Your task to perform on an android device: change your default location settings in chrome Image 0: 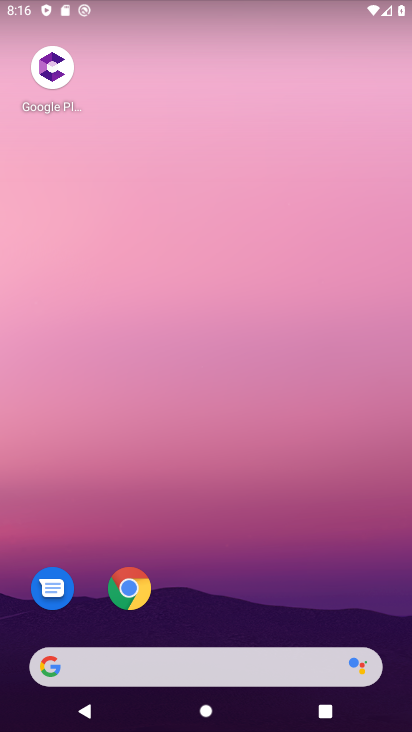
Step 0: click (129, 571)
Your task to perform on an android device: change your default location settings in chrome Image 1: 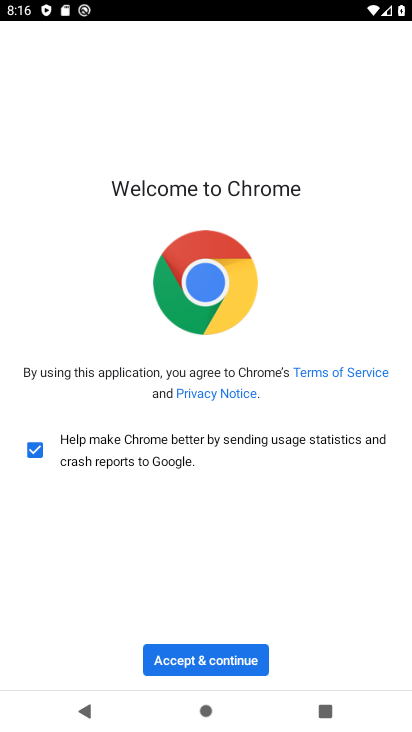
Step 1: click (226, 670)
Your task to perform on an android device: change your default location settings in chrome Image 2: 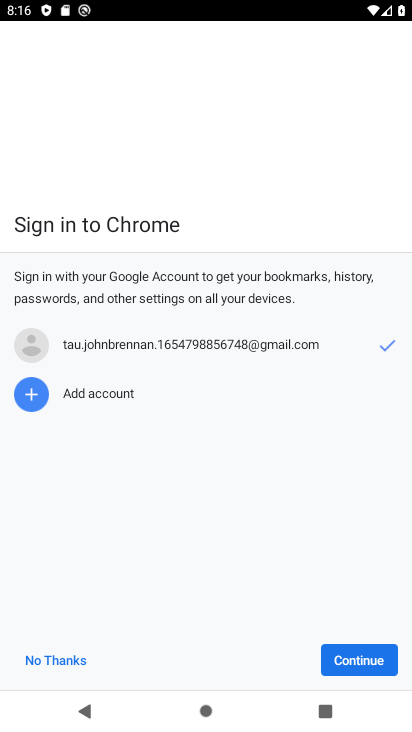
Step 2: click (374, 668)
Your task to perform on an android device: change your default location settings in chrome Image 3: 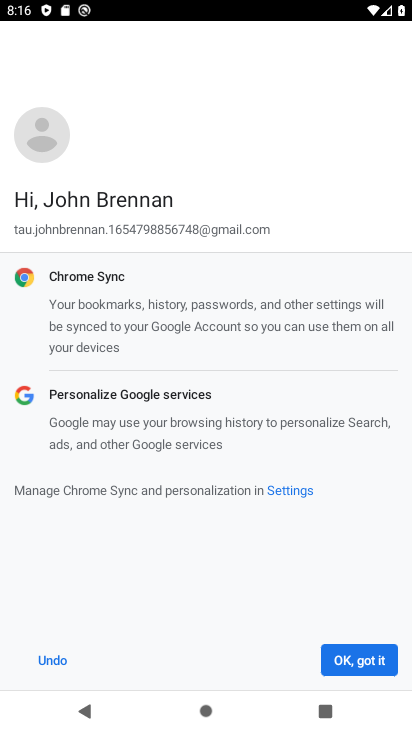
Step 3: click (374, 668)
Your task to perform on an android device: change your default location settings in chrome Image 4: 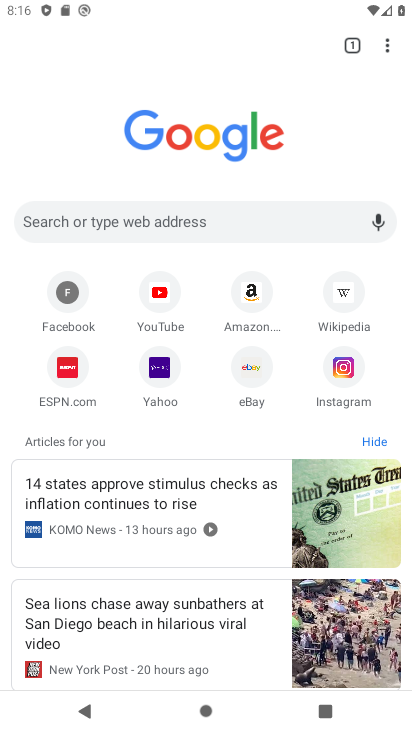
Step 4: click (386, 51)
Your task to perform on an android device: change your default location settings in chrome Image 5: 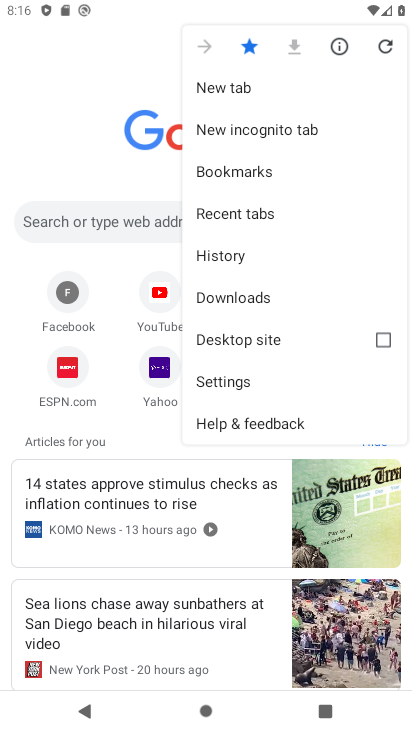
Step 5: click (242, 379)
Your task to perform on an android device: change your default location settings in chrome Image 6: 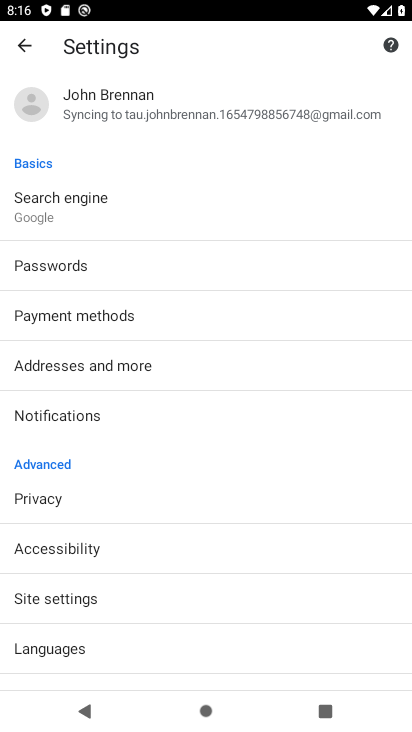
Step 6: click (158, 600)
Your task to perform on an android device: change your default location settings in chrome Image 7: 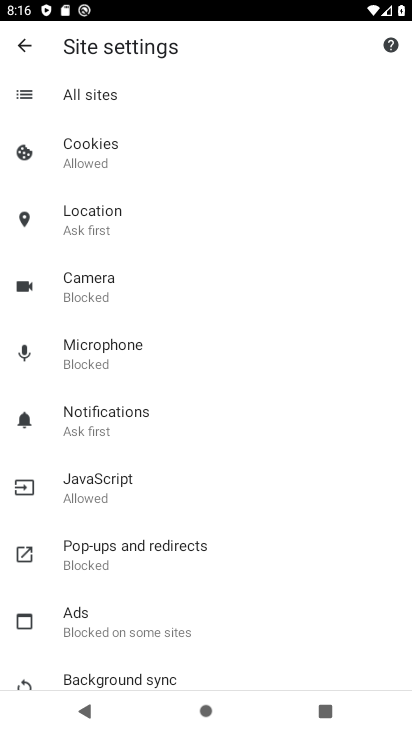
Step 7: click (185, 221)
Your task to perform on an android device: change your default location settings in chrome Image 8: 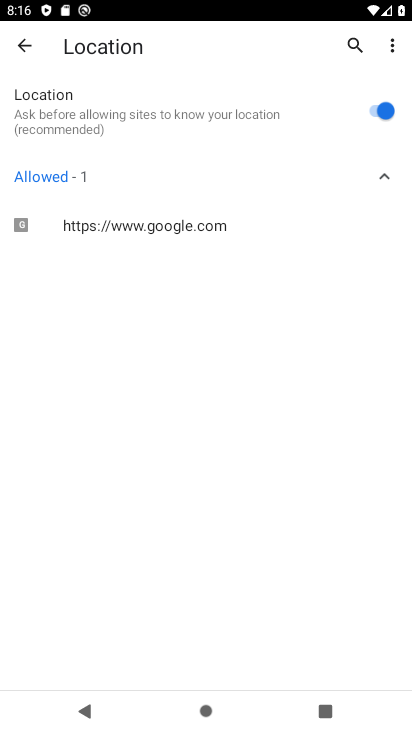
Step 8: click (375, 115)
Your task to perform on an android device: change your default location settings in chrome Image 9: 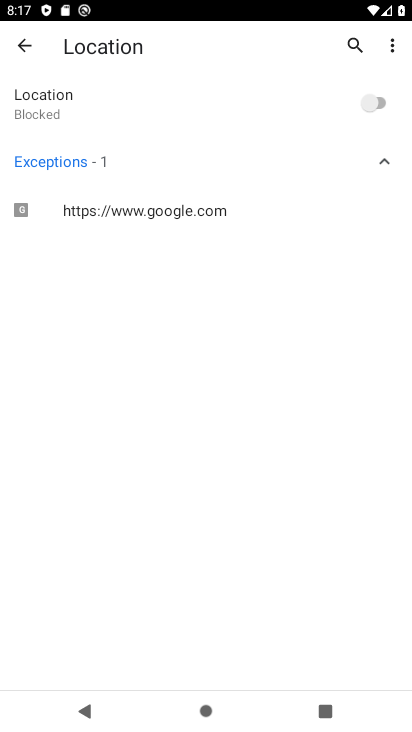
Step 9: task complete